Your task to perform on an android device: turn notification dots on Image 0: 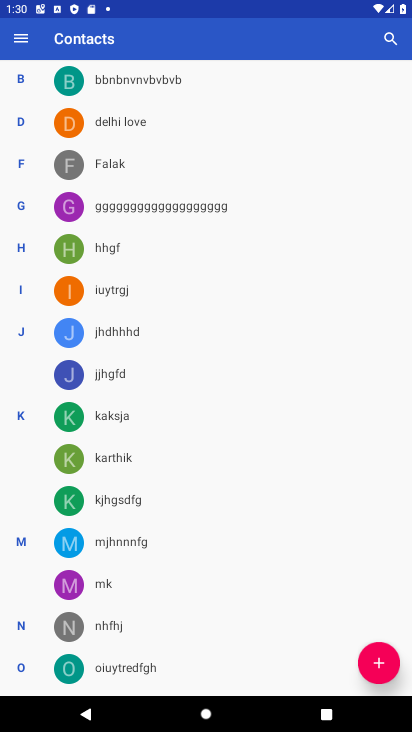
Step 0: press home button
Your task to perform on an android device: turn notification dots on Image 1: 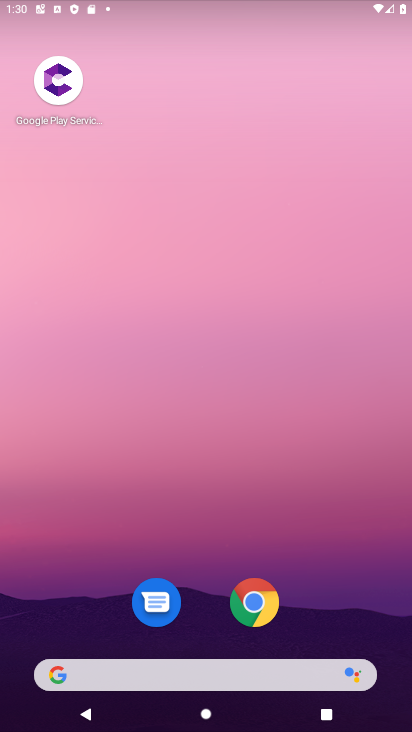
Step 1: drag from (366, 625) to (269, 96)
Your task to perform on an android device: turn notification dots on Image 2: 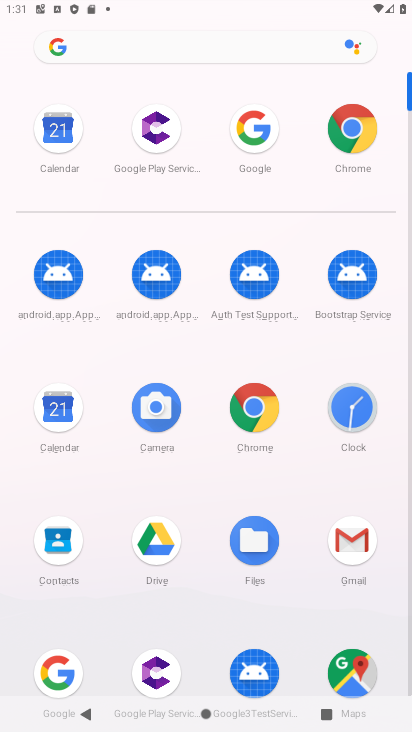
Step 2: drag from (85, 625) to (128, 66)
Your task to perform on an android device: turn notification dots on Image 3: 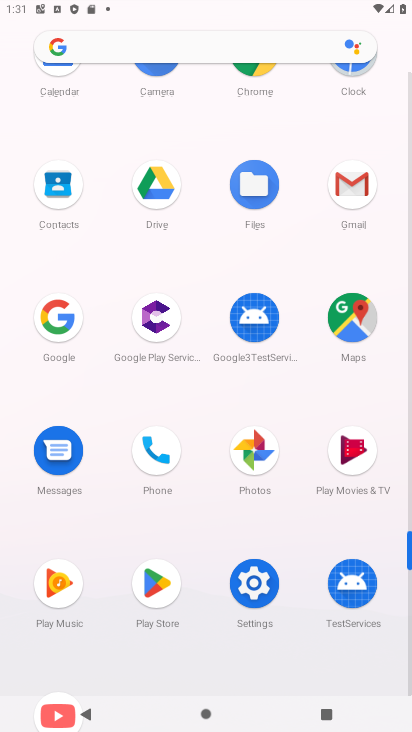
Step 3: click (255, 598)
Your task to perform on an android device: turn notification dots on Image 4: 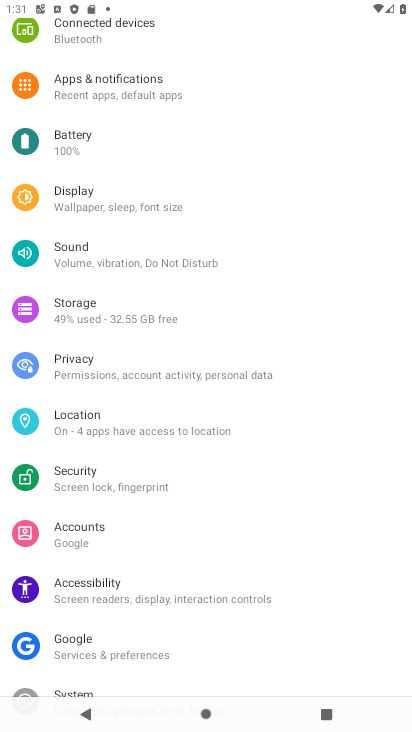
Step 4: click (158, 86)
Your task to perform on an android device: turn notification dots on Image 5: 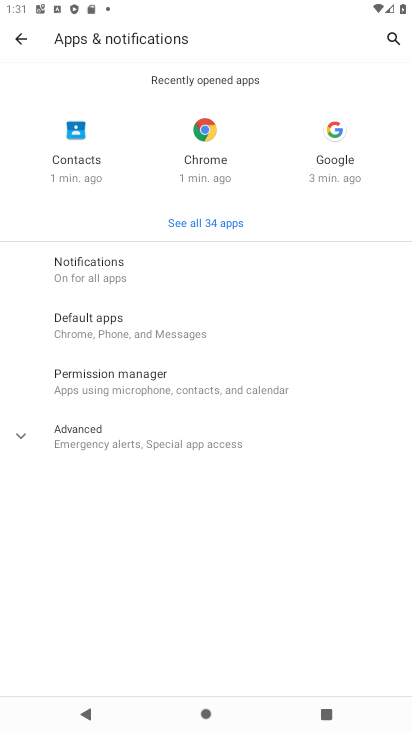
Step 5: click (88, 441)
Your task to perform on an android device: turn notification dots on Image 6: 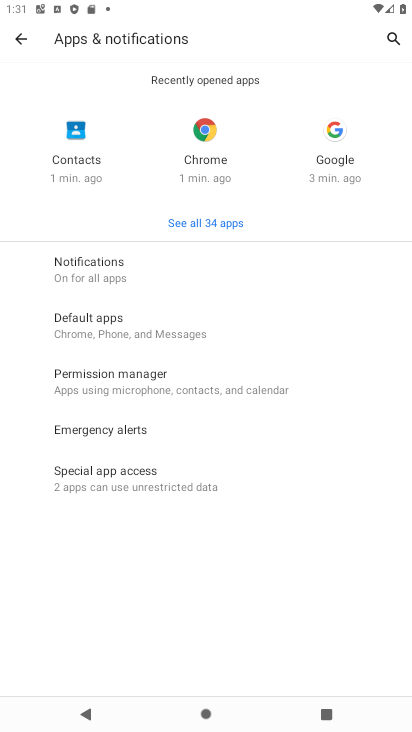
Step 6: click (103, 286)
Your task to perform on an android device: turn notification dots on Image 7: 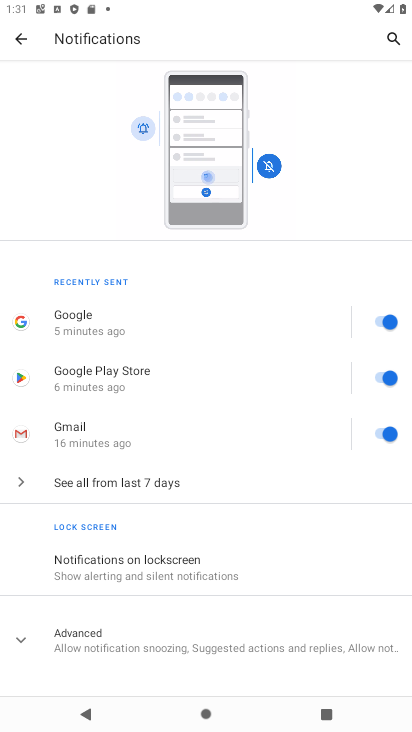
Step 7: click (144, 631)
Your task to perform on an android device: turn notification dots on Image 8: 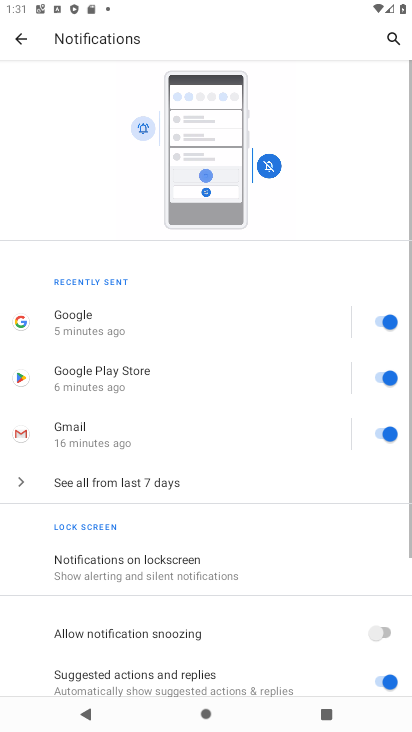
Step 8: drag from (145, 634) to (188, 233)
Your task to perform on an android device: turn notification dots on Image 9: 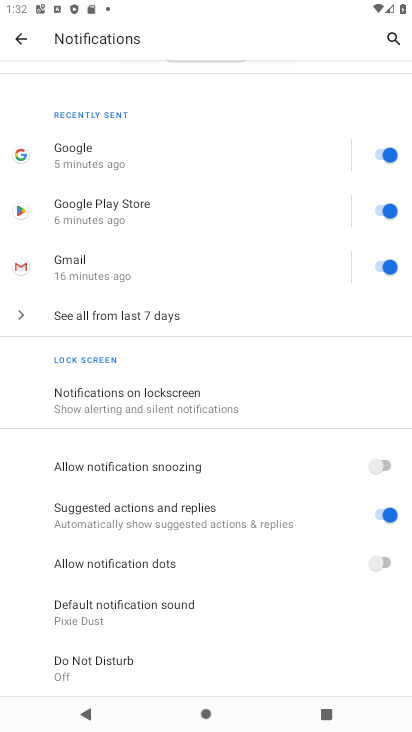
Step 9: click (184, 561)
Your task to perform on an android device: turn notification dots on Image 10: 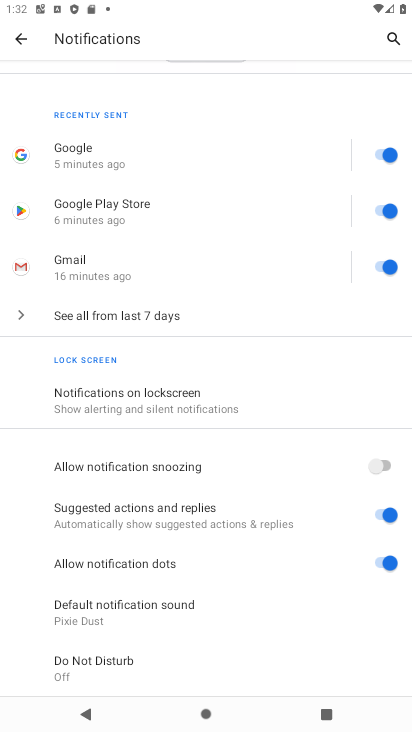
Step 10: task complete